Your task to perform on an android device: stop showing notifications on the lock screen Image 0: 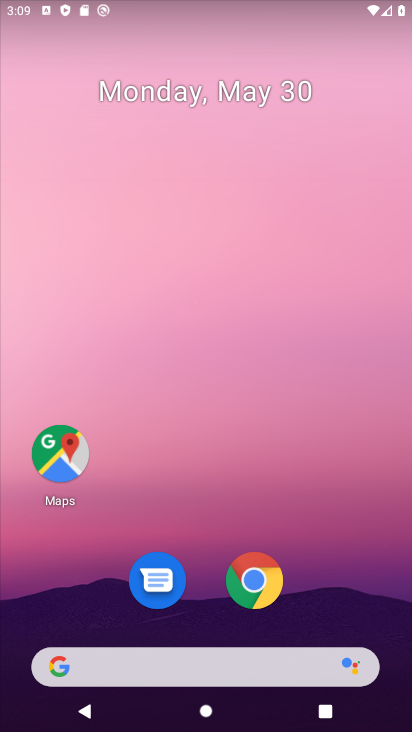
Step 0: drag from (322, 568) to (313, 23)
Your task to perform on an android device: stop showing notifications on the lock screen Image 1: 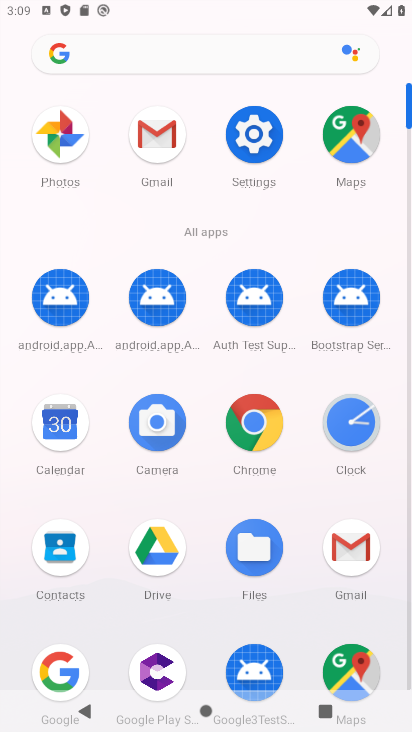
Step 1: click (254, 135)
Your task to perform on an android device: stop showing notifications on the lock screen Image 2: 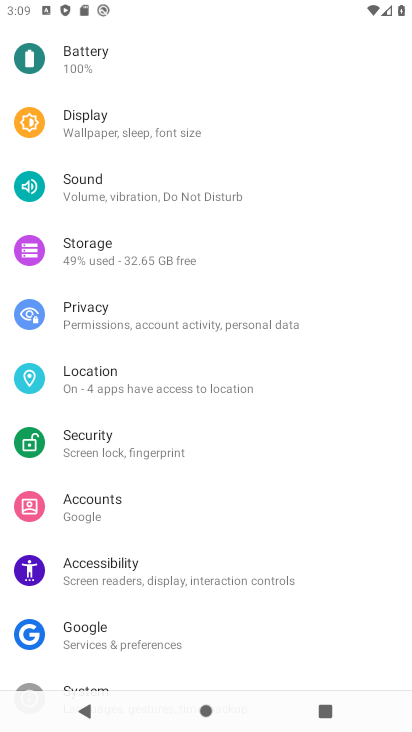
Step 2: drag from (151, 121) to (190, 378)
Your task to perform on an android device: stop showing notifications on the lock screen Image 3: 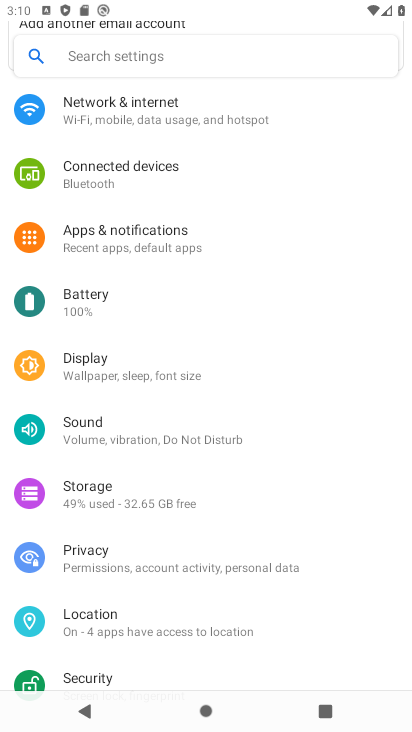
Step 3: click (136, 240)
Your task to perform on an android device: stop showing notifications on the lock screen Image 4: 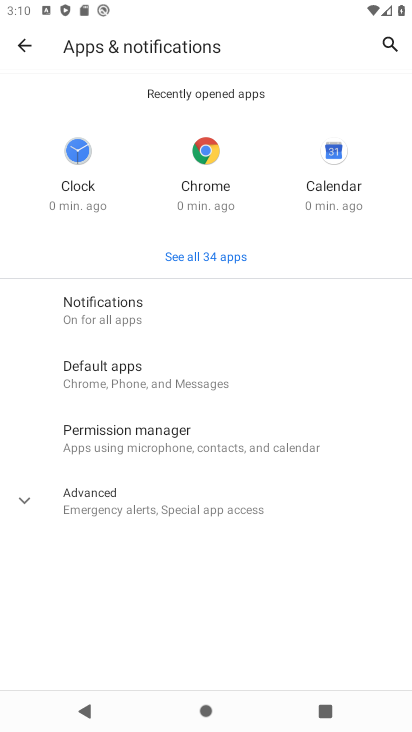
Step 4: click (86, 501)
Your task to perform on an android device: stop showing notifications on the lock screen Image 5: 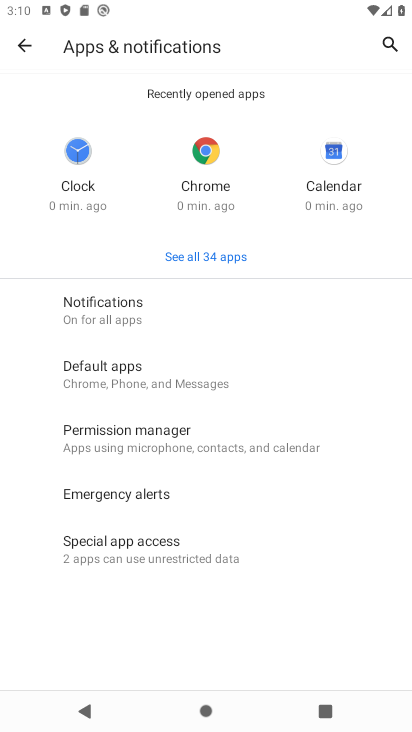
Step 5: click (125, 309)
Your task to perform on an android device: stop showing notifications on the lock screen Image 6: 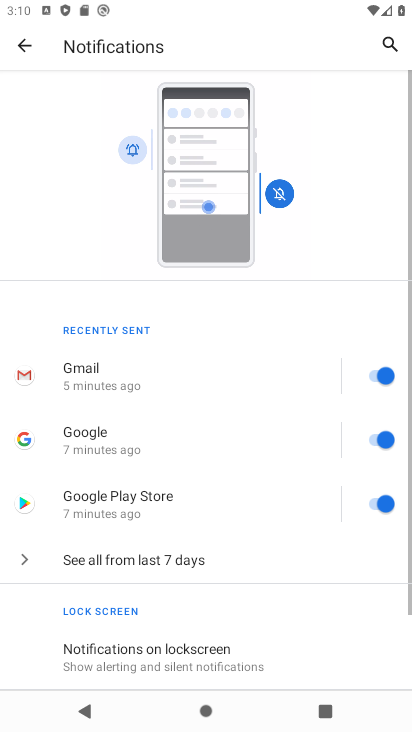
Step 6: drag from (249, 555) to (273, 65)
Your task to perform on an android device: stop showing notifications on the lock screen Image 7: 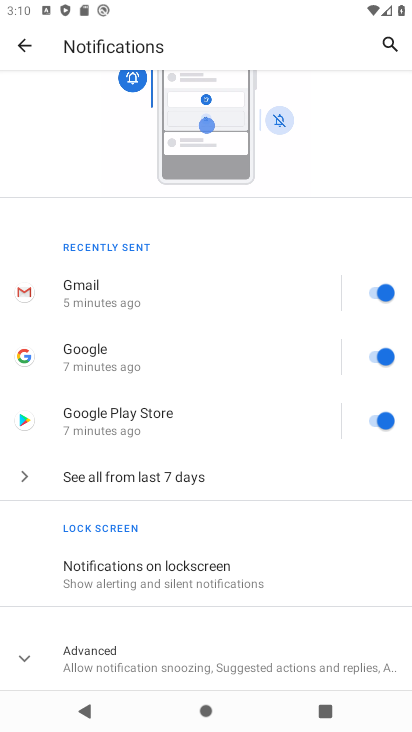
Step 7: click (120, 585)
Your task to perform on an android device: stop showing notifications on the lock screen Image 8: 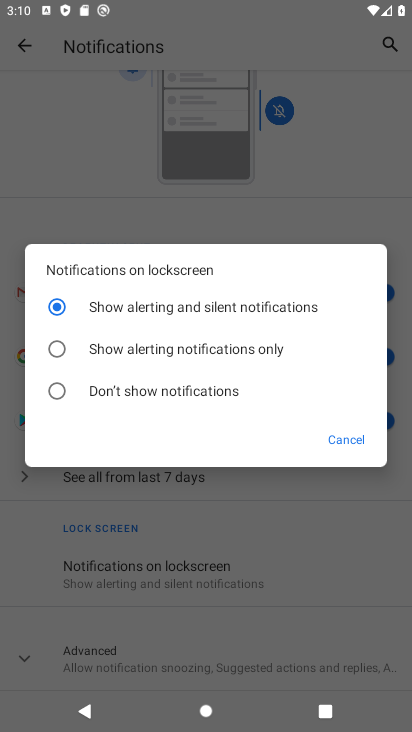
Step 8: click (49, 398)
Your task to perform on an android device: stop showing notifications on the lock screen Image 9: 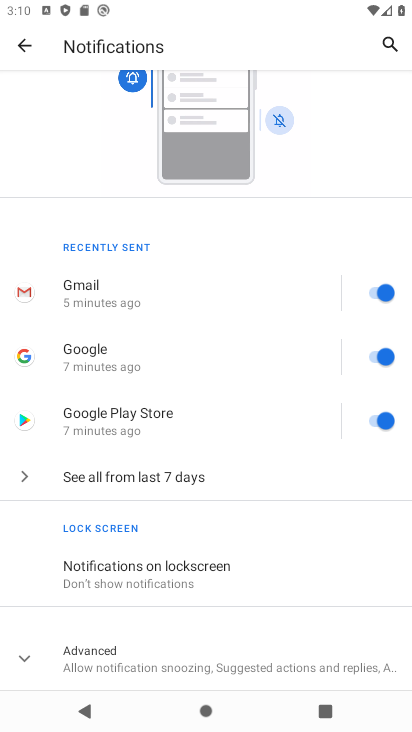
Step 9: task complete